Your task to perform on an android device: check the backup settings in the google photos Image 0: 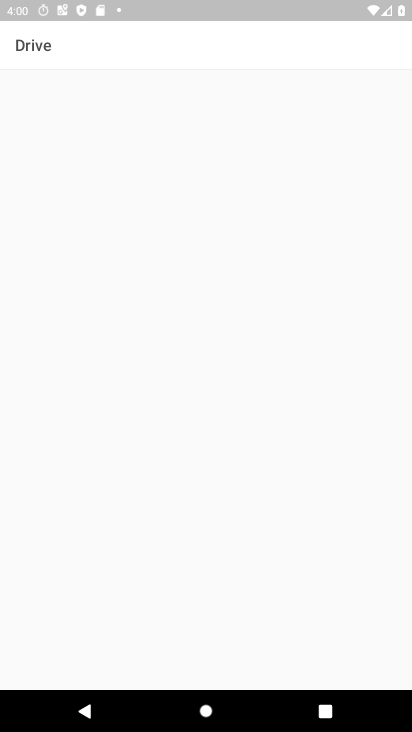
Step 0: press home button
Your task to perform on an android device: check the backup settings in the google photos Image 1: 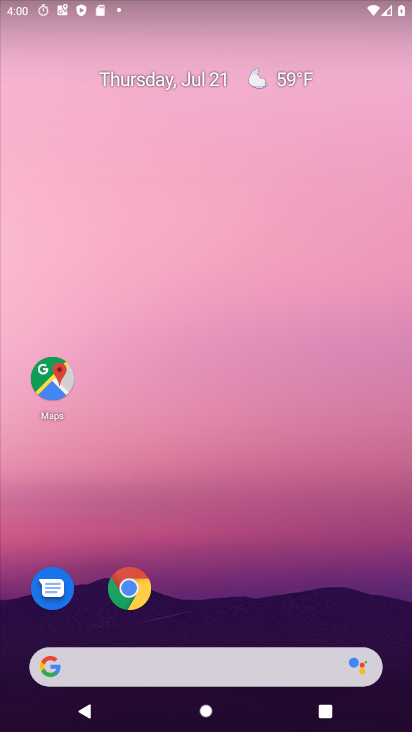
Step 1: drag from (223, 626) to (228, 189)
Your task to perform on an android device: check the backup settings in the google photos Image 2: 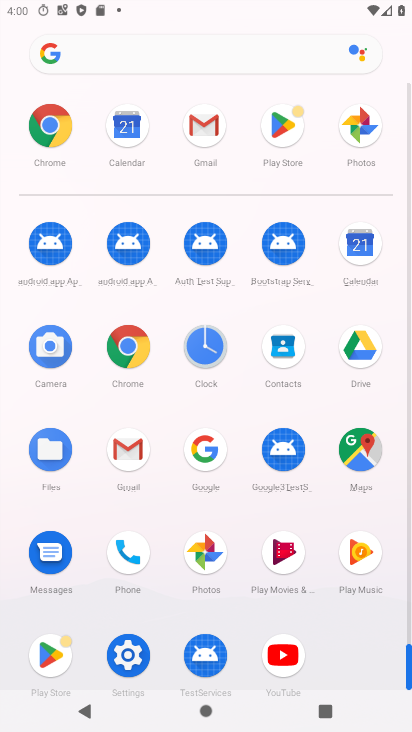
Step 2: click (217, 561)
Your task to perform on an android device: check the backup settings in the google photos Image 3: 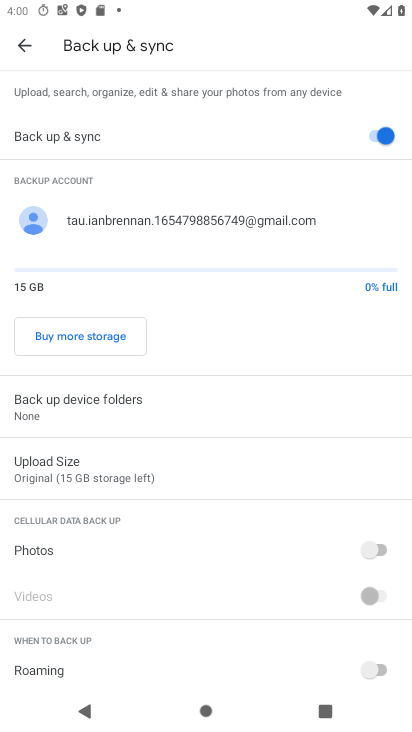
Step 3: task complete